Your task to perform on an android device: Open notification settings Image 0: 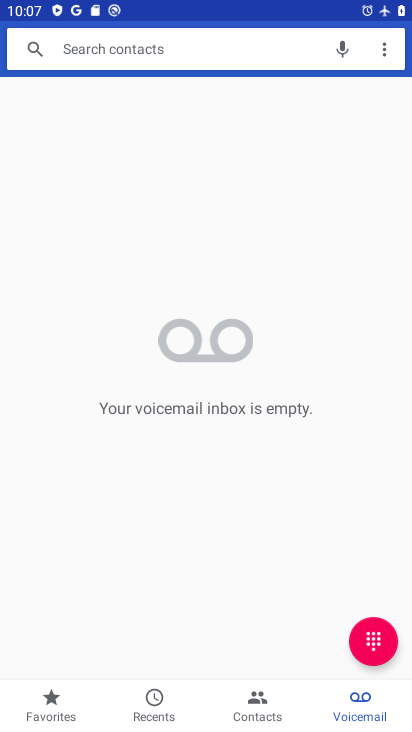
Step 0: press home button
Your task to perform on an android device: Open notification settings Image 1: 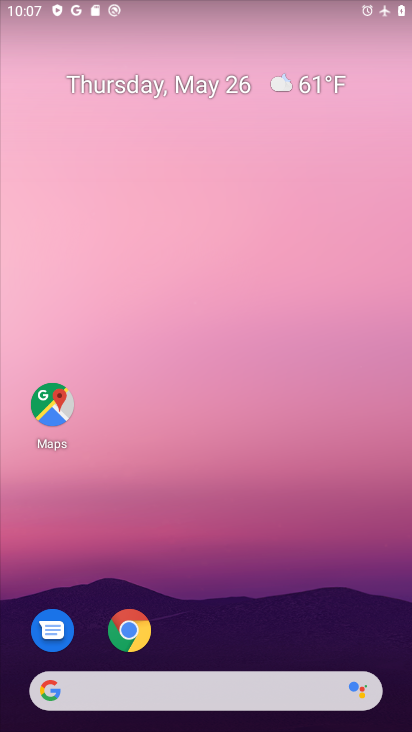
Step 1: drag from (203, 635) to (188, 173)
Your task to perform on an android device: Open notification settings Image 2: 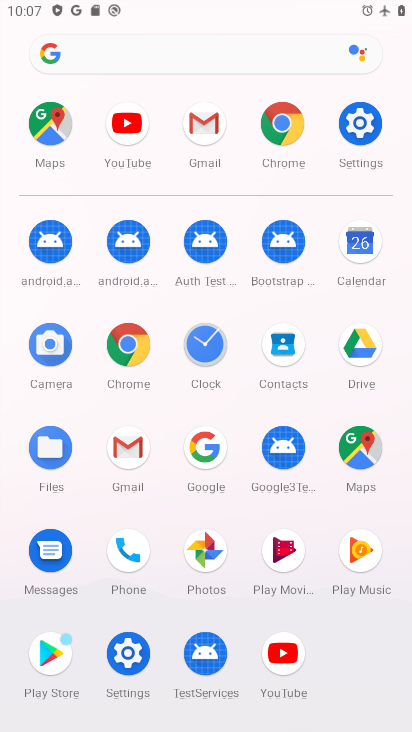
Step 2: click (363, 125)
Your task to perform on an android device: Open notification settings Image 3: 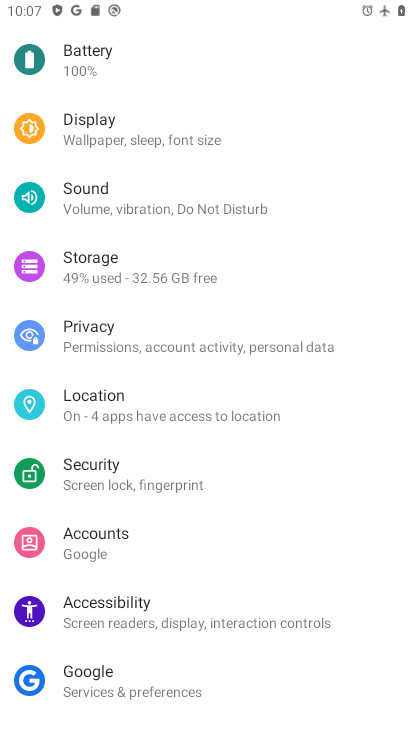
Step 3: drag from (214, 187) to (139, 647)
Your task to perform on an android device: Open notification settings Image 4: 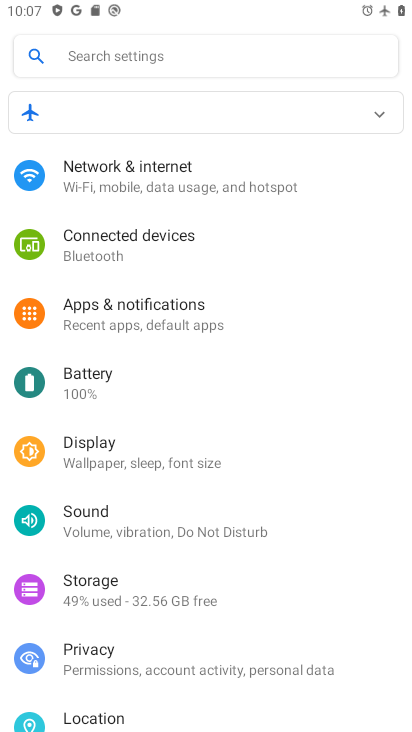
Step 4: click (135, 309)
Your task to perform on an android device: Open notification settings Image 5: 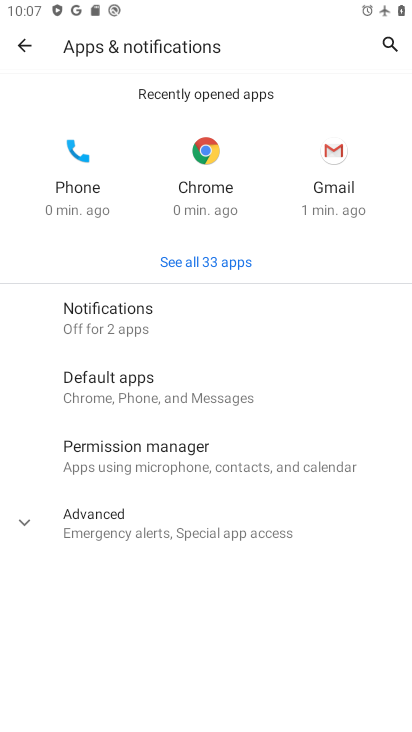
Step 5: click (121, 307)
Your task to perform on an android device: Open notification settings Image 6: 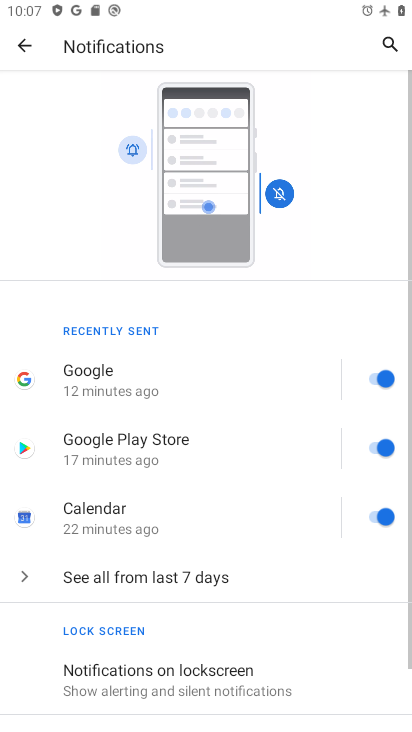
Step 6: task complete